Your task to perform on an android device: set the timer Image 0: 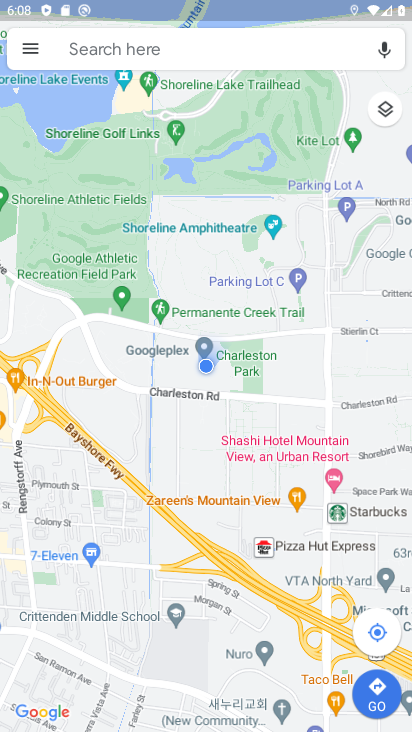
Step 0: press back button
Your task to perform on an android device: set the timer Image 1: 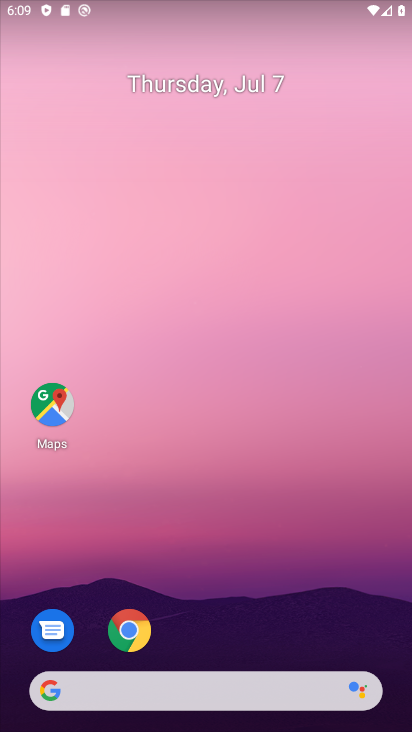
Step 1: drag from (202, 578) to (203, 186)
Your task to perform on an android device: set the timer Image 2: 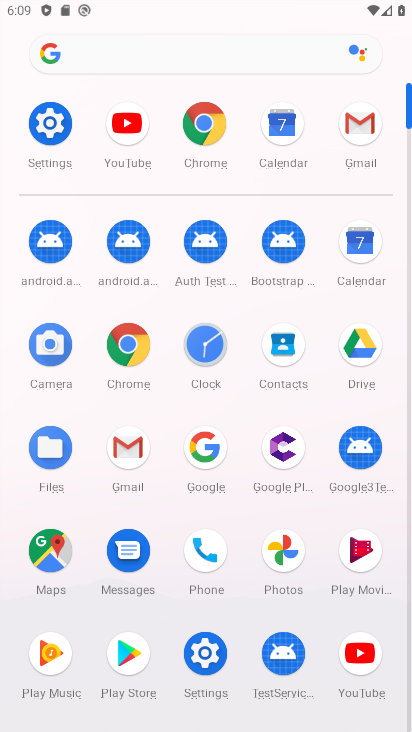
Step 2: click (199, 363)
Your task to perform on an android device: set the timer Image 3: 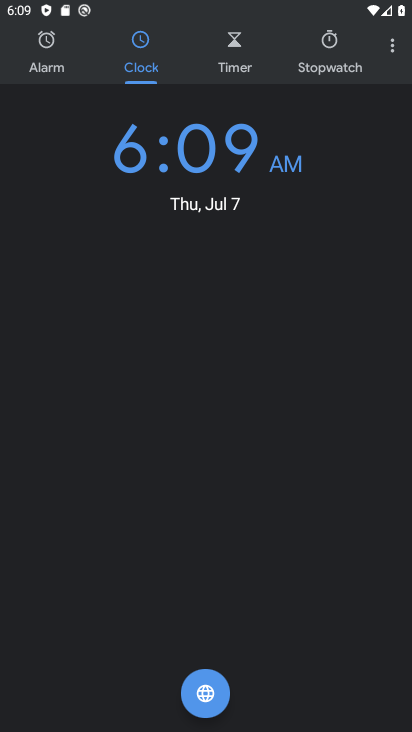
Step 3: click (234, 68)
Your task to perform on an android device: set the timer Image 4: 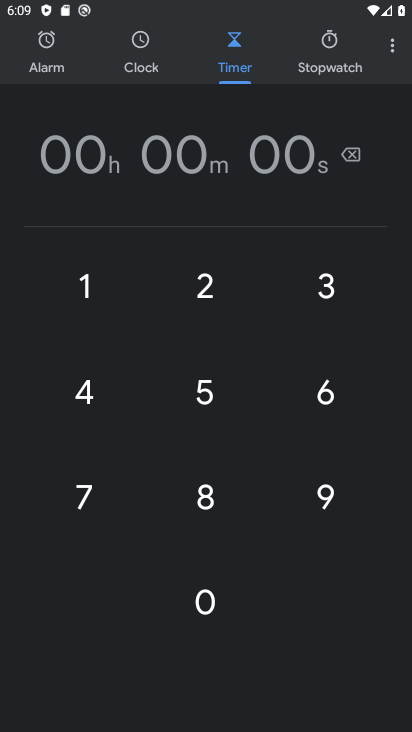
Step 4: click (96, 292)
Your task to perform on an android device: set the timer Image 5: 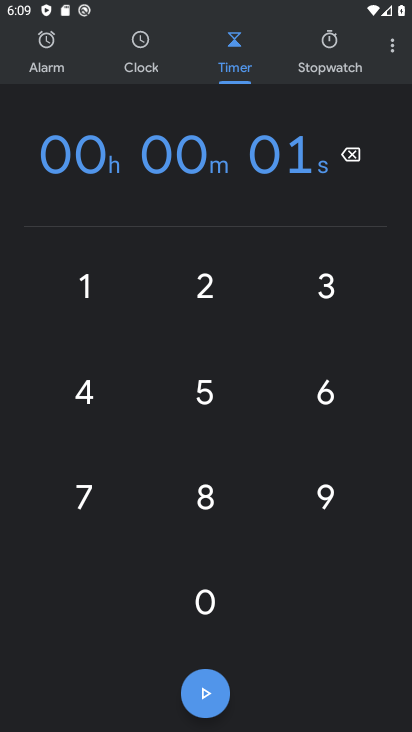
Step 5: click (211, 594)
Your task to perform on an android device: set the timer Image 6: 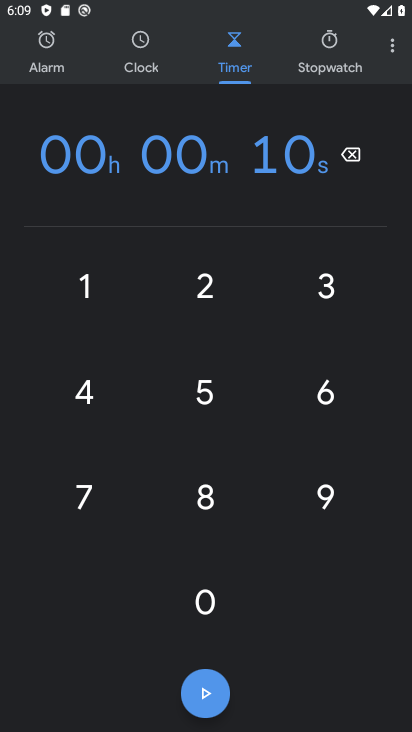
Step 6: click (200, 309)
Your task to perform on an android device: set the timer Image 7: 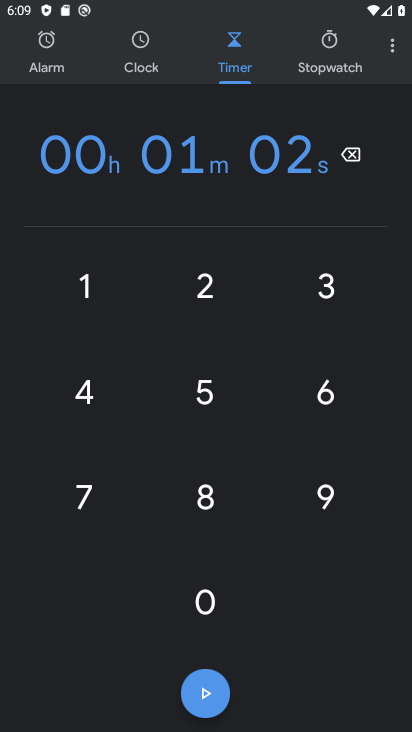
Step 7: click (207, 607)
Your task to perform on an android device: set the timer Image 8: 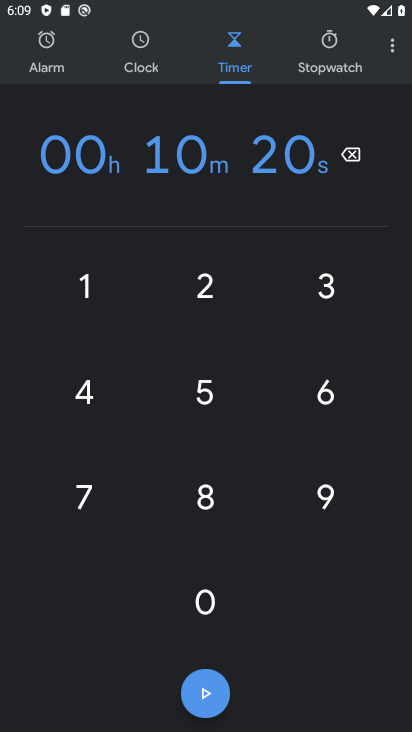
Step 8: click (201, 707)
Your task to perform on an android device: set the timer Image 9: 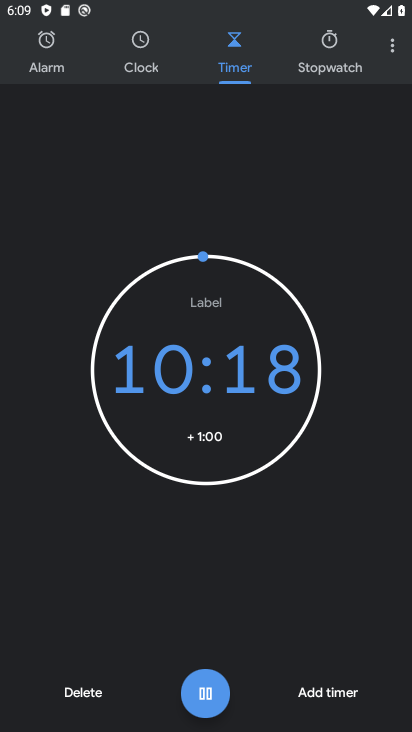
Step 9: click (300, 689)
Your task to perform on an android device: set the timer Image 10: 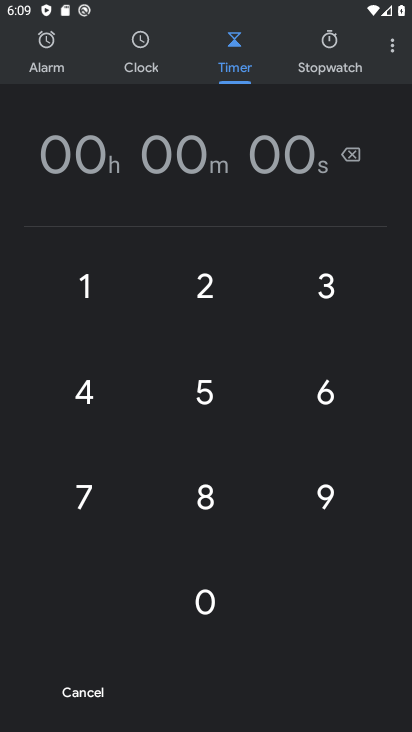
Step 10: task complete